Your task to perform on an android device: toggle location history Image 0: 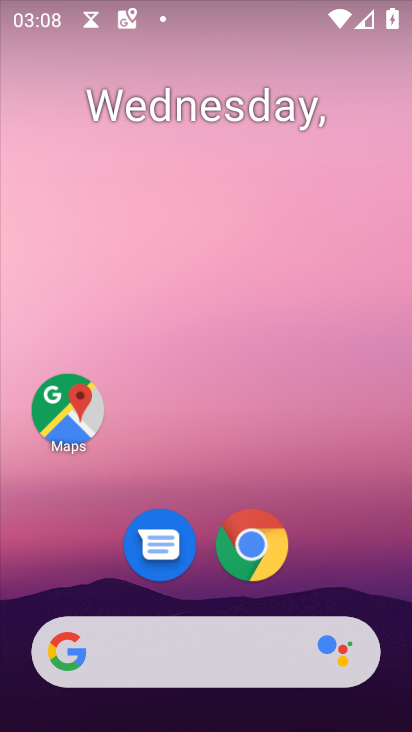
Step 0: click (61, 412)
Your task to perform on an android device: toggle location history Image 1: 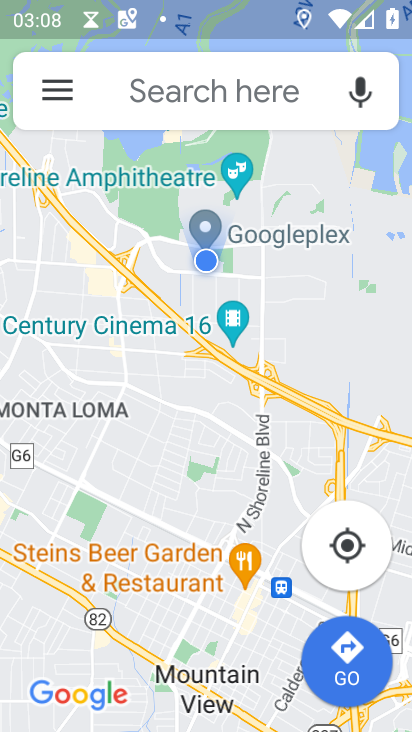
Step 1: click (58, 89)
Your task to perform on an android device: toggle location history Image 2: 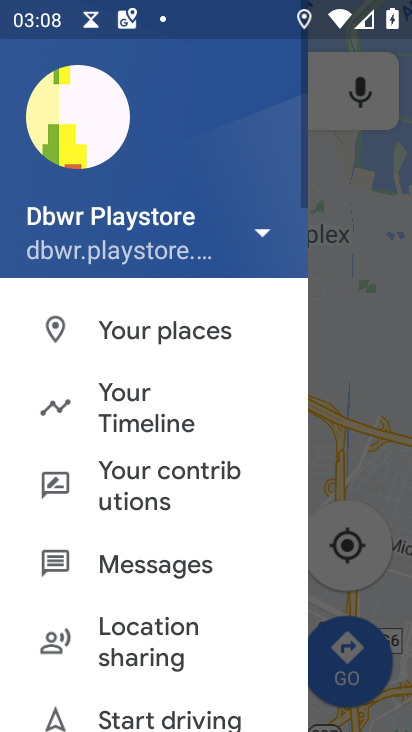
Step 2: click (133, 399)
Your task to perform on an android device: toggle location history Image 3: 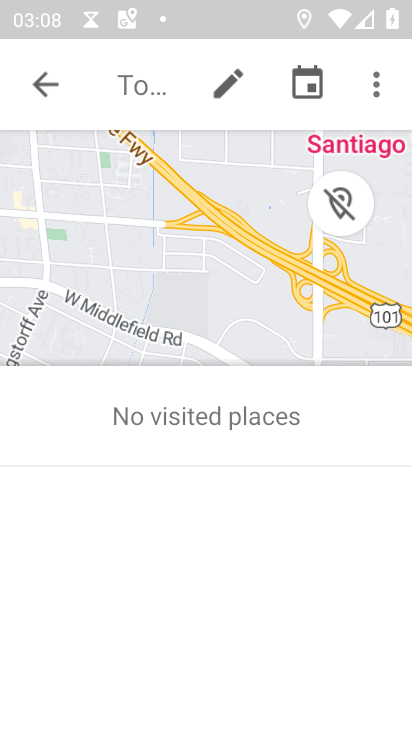
Step 3: click (377, 83)
Your task to perform on an android device: toggle location history Image 4: 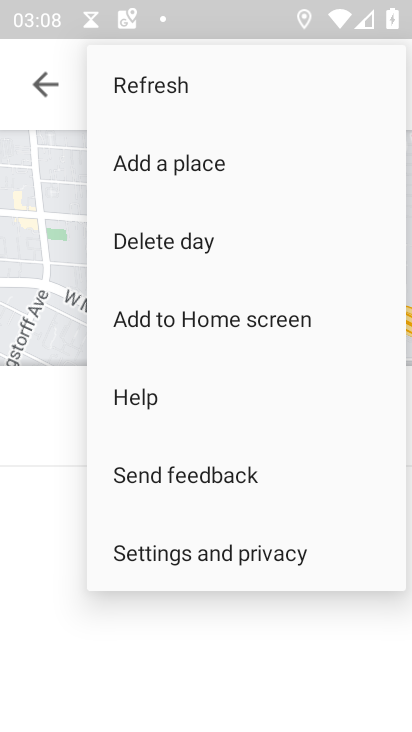
Step 4: click (193, 549)
Your task to perform on an android device: toggle location history Image 5: 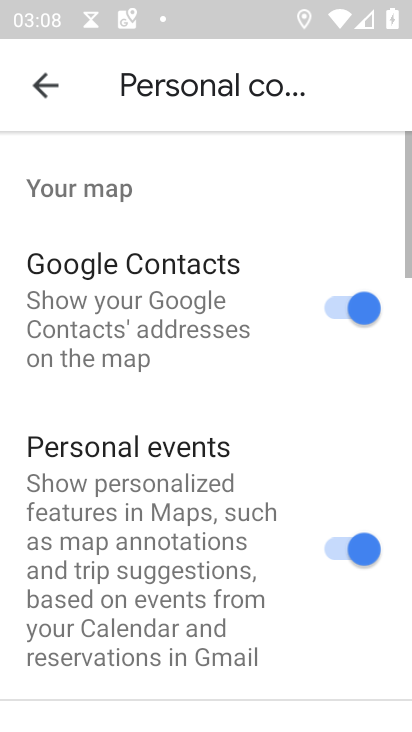
Step 5: drag from (187, 597) to (329, 97)
Your task to perform on an android device: toggle location history Image 6: 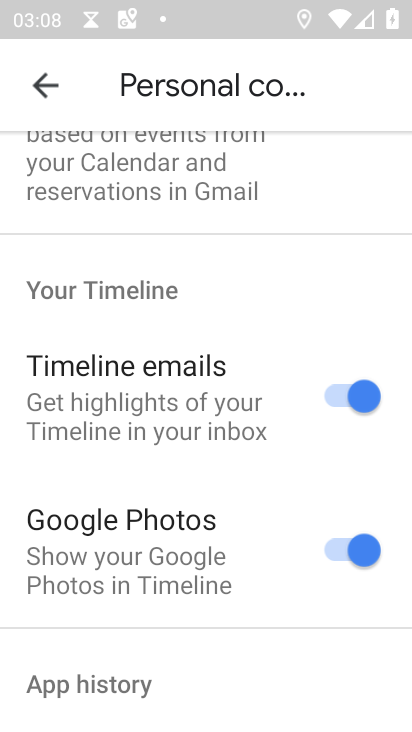
Step 6: drag from (197, 622) to (334, 186)
Your task to perform on an android device: toggle location history Image 7: 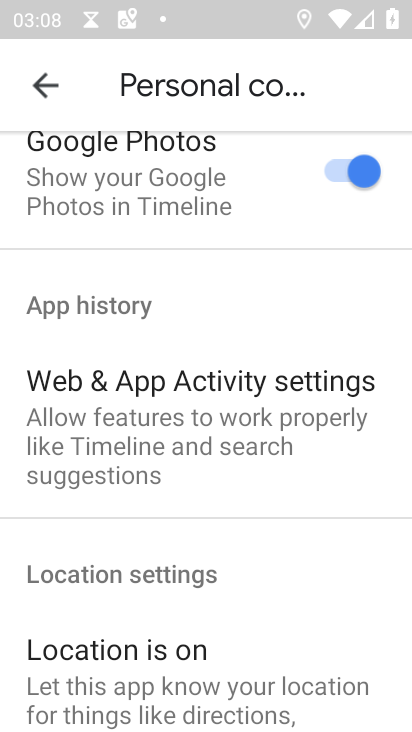
Step 7: drag from (198, 606) to (367, 148)
Your task to perform on an android device: toggle location history Image 8: 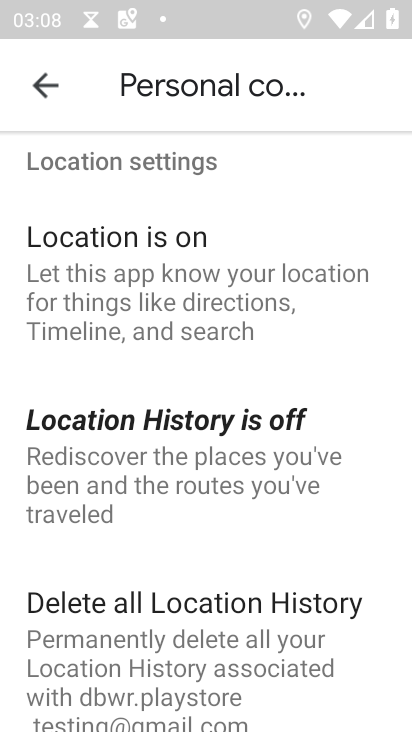
Step 8: click (186, 459)
Your task to perform on an android device: toggle location history Image 9: 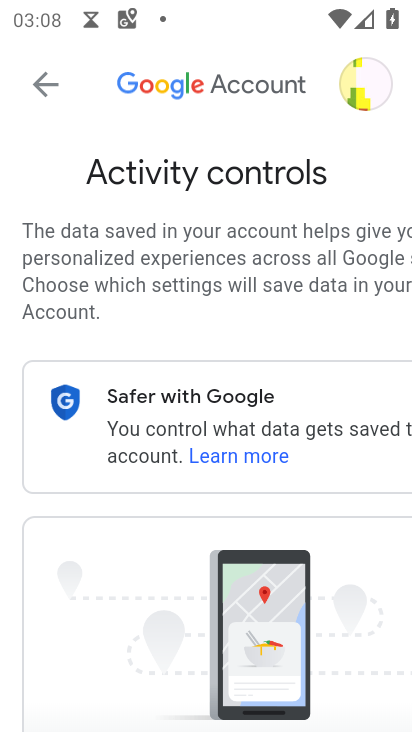
Step 9: drag from (194, 663) to (393, 191)
Your task to perform on an android device: toggle location history Image 10: 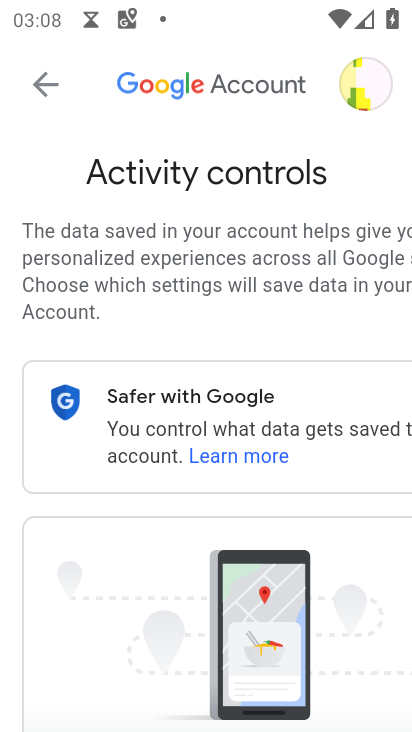
Step 10: drag from (177, 597) to (342, 88)
Your task to perform on an android device: toggle location history Image 11: 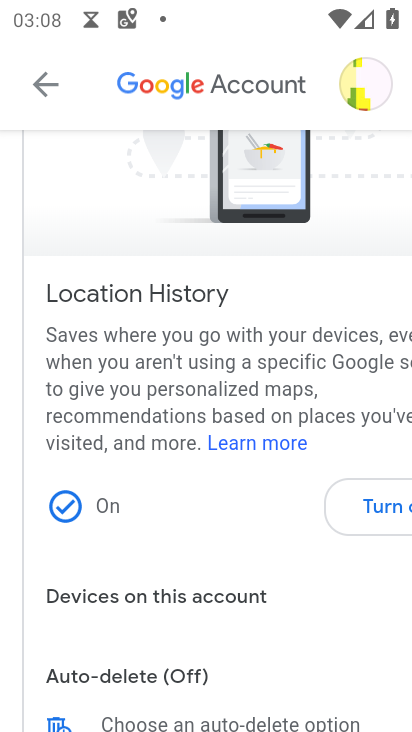
Step 11: click (363, 500)
Your task to perform on an android device: toggle location history Image 12: 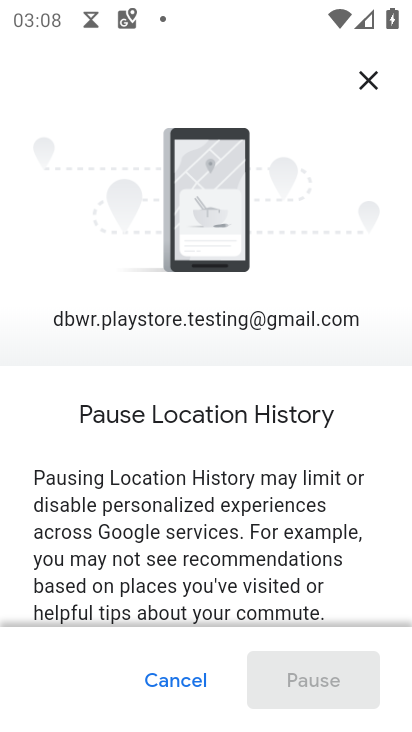
Step 12: drag from (265, 604) to (396, 170)
Your task to perform on an android device: toggle location history Image 13: 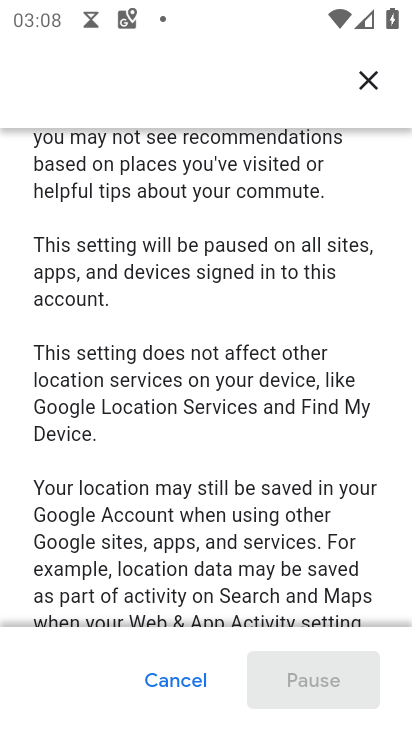
Step 13: drag from (199, 559) to (345, 121)
Your task to perform on an android device: toggle location history Image 14: 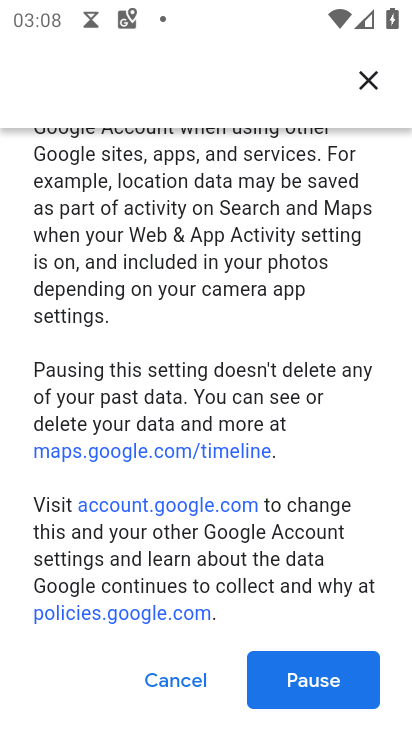
Step 14: click (308, 682)
Your task to perform on an android device: toggle location history Image 15: 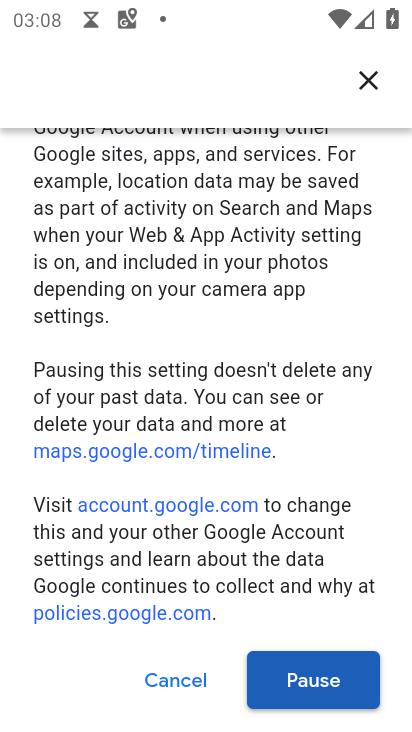
Step 15: click (308, 682)
Your task to perform on an android device: toggle location history Image 16: 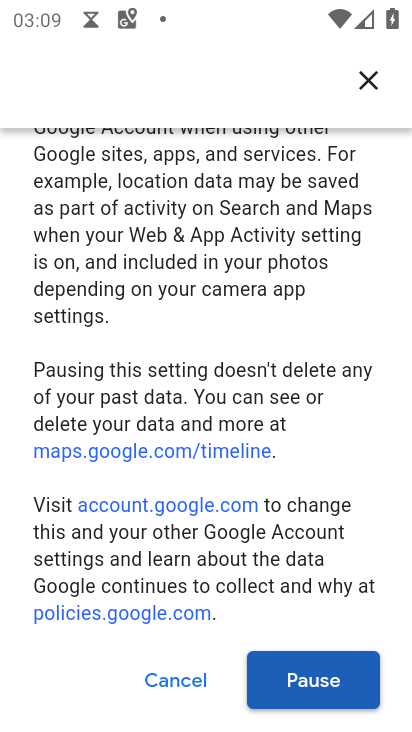
Step 16: click (304, 688)
Your task to perform on an android device: toggle location history Image 17: 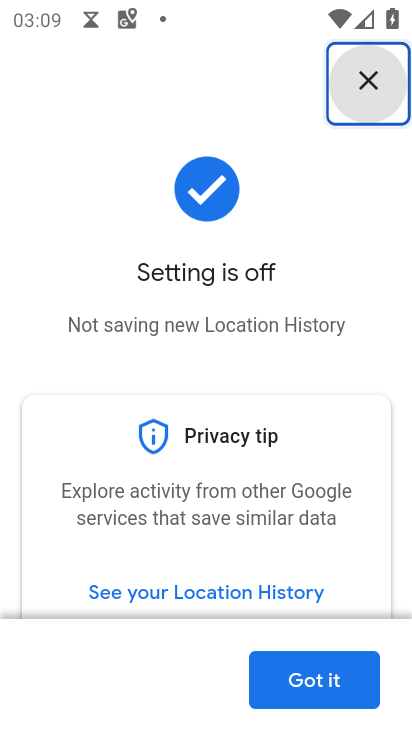
Step 17: click (304, 688)
Your task to perform on an android device: toggle location history Image 18: 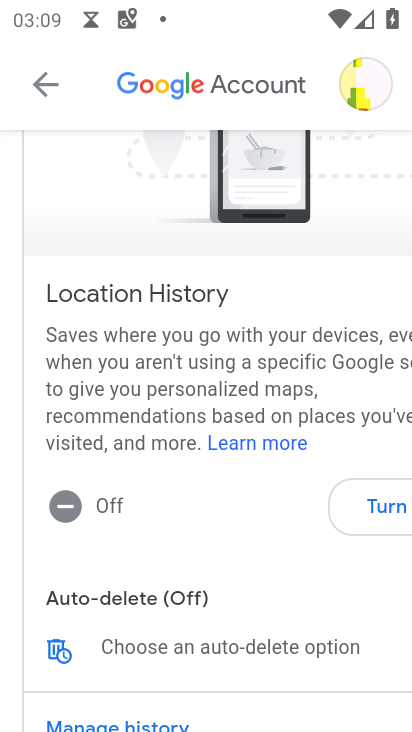
Step 18: task complete